Your task to perform on an android device: What's the weather today? Image 0: 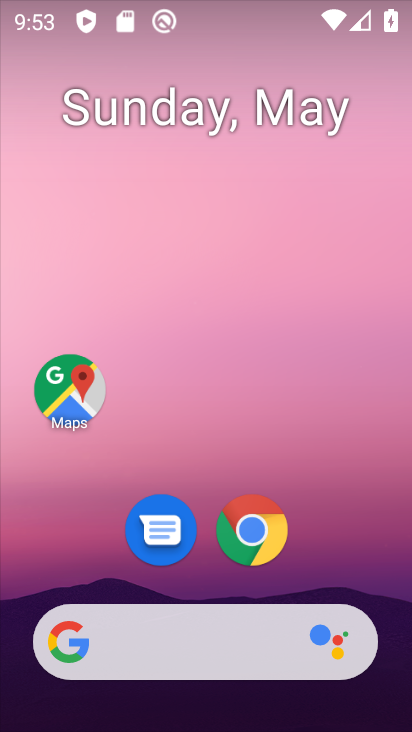
Step 0: drag from (1, 273) to (382, 234)
Your task to perform on an android device: What's the weather today? Image 1: 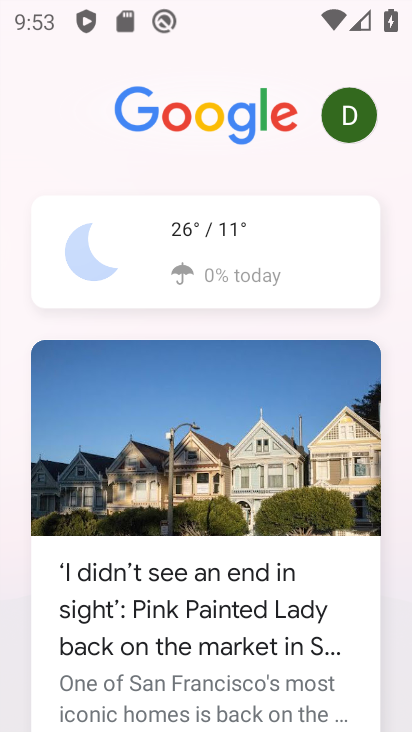
Step 1: click (213, 229)
Your task to perform on an android device: What's the weather today? Image 2: 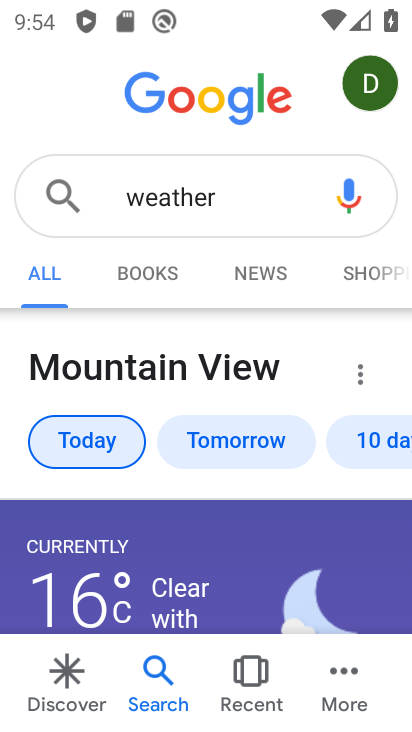
Step 2: click (94, 440)
Your task to perform on an android device: What's the weather today? Image 3: 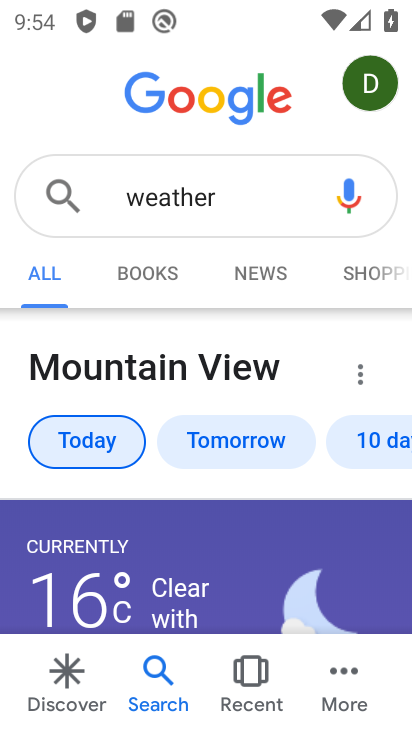
Step 3: click (94, 439)
Your task to perform on an android device: What's the weather today? Image 4: 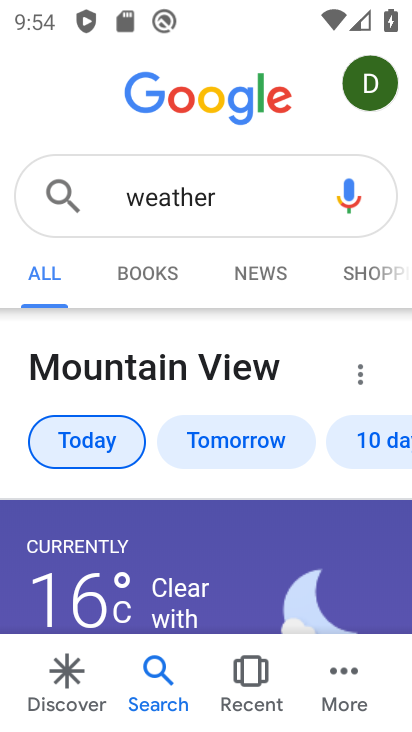
Step 4: click (89, 442)
Your task to perform on an android device: What's the weather today? Image 5: 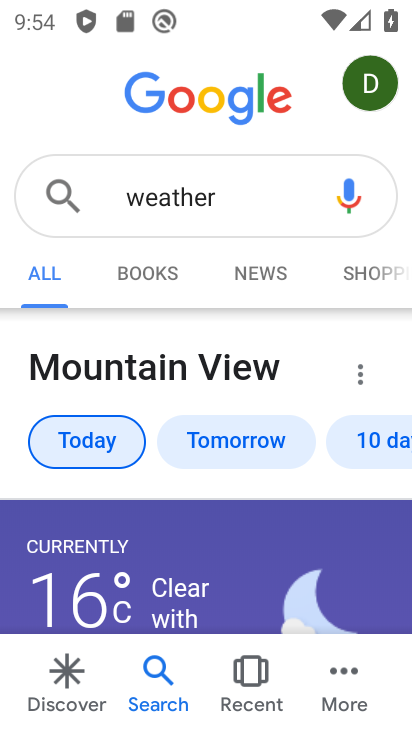
Step 5: task complete